Your task to perform on an android device: allow cookies in the chrome app Image 0: 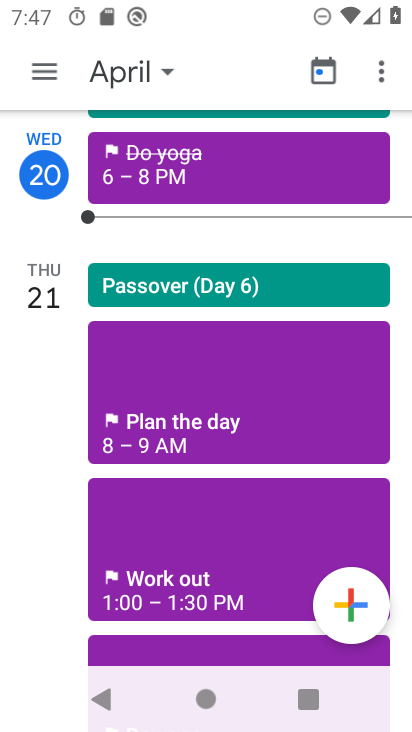
Step 0: click (235, 677)
Your task to perform on an android device: allow cookies in the chrome app Image 1: 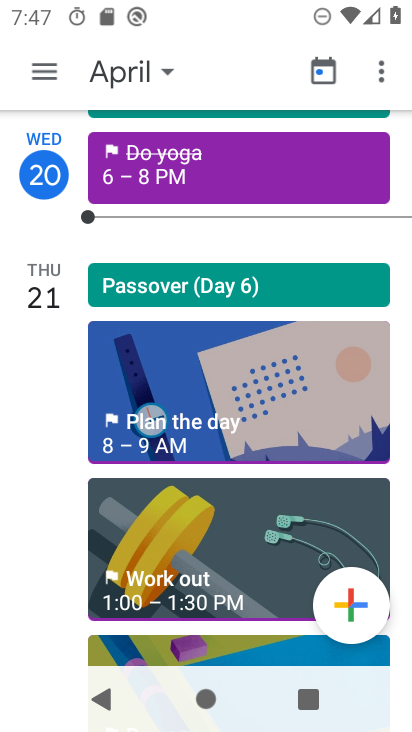
Step 1: press home button
Your task to perform on an android device: allow cookies in the chrome app Image 2: 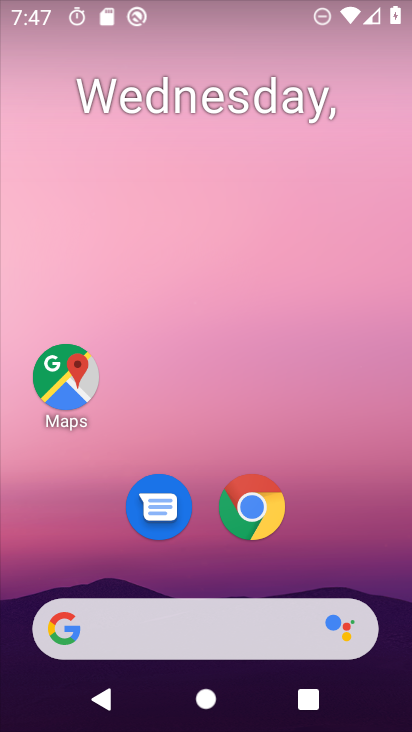
Step 2: drag from (184, 664) to (215, 173)
Your task to perform on an android device: allow cookies in the chrome app Image 3: 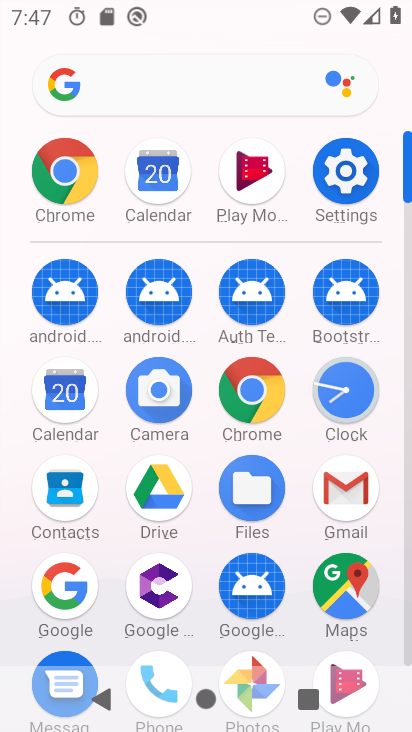
Step 3: click (73, 185)
Your task to perform on an android device: allow cookies in the chrome app Image 4: 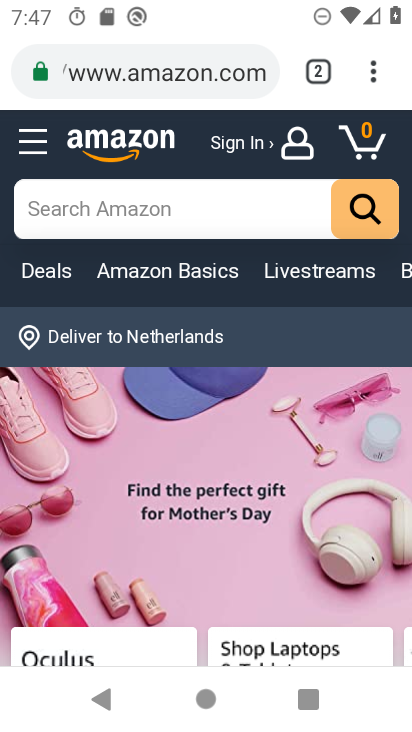
Step 4: click (374, 61)
Your task to perform on an android device: allow cookies in the chrome app Image 5: 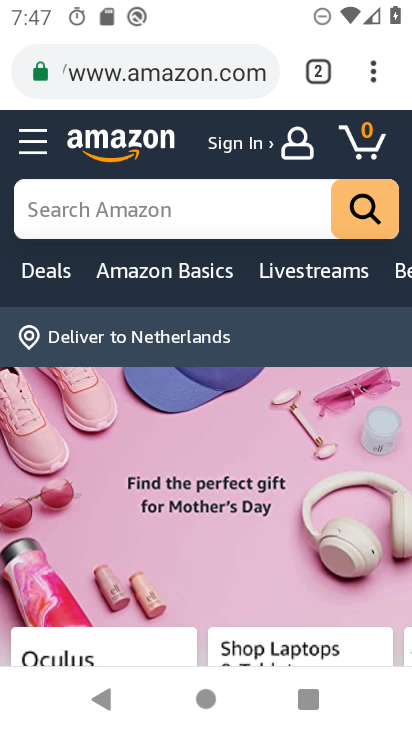
Step 5: click (371, 70)
Your task to perform on an android device: allow cookies in the chrome app Image 6: 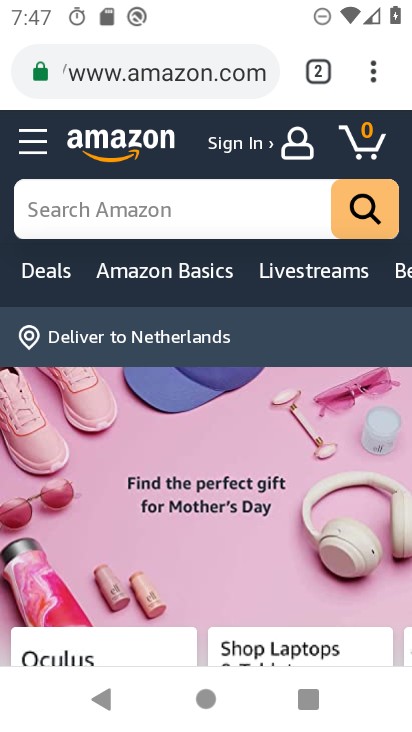
Step 6: click (367, 79)
Your task to perform on an android device: allow cookies in the chrome app Image 7: 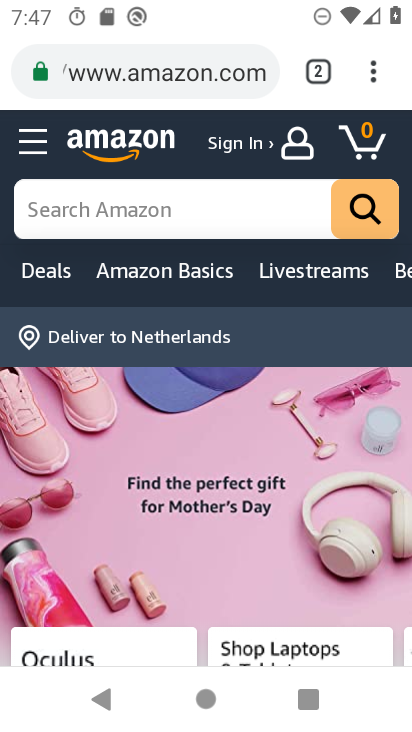
Step 7: click (373, 74)
Your task to perform on an android device: allow cookies in the chrome app Image 8: 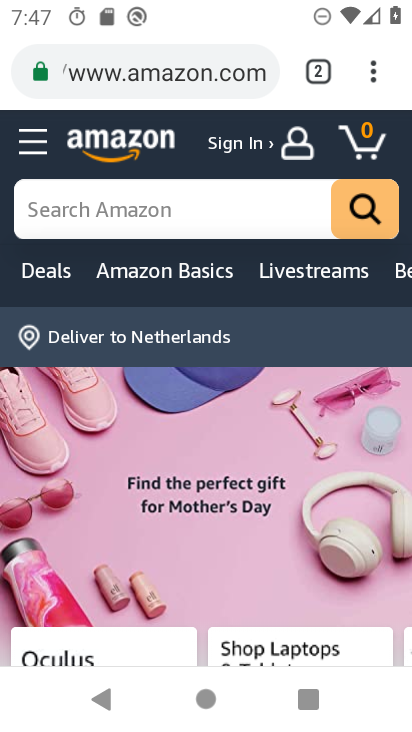
Step 8: click (373, 70)
Your task to perform on an android device: allow cookies in the chrome app Image 9: 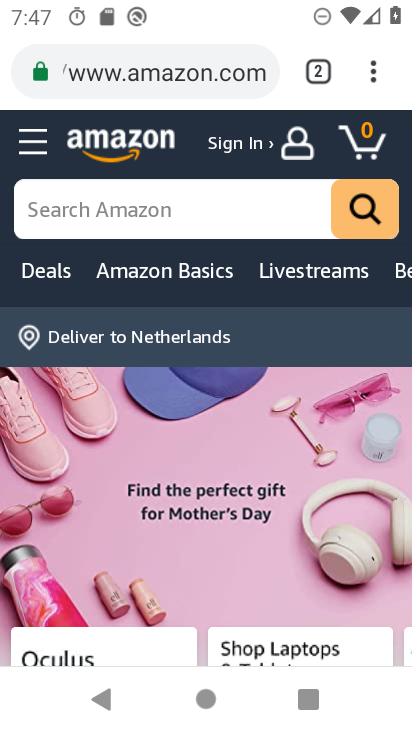
Step 9: click (365, 72)
Your task to perform on an android device: allow cookies in the chrome app Image 10: 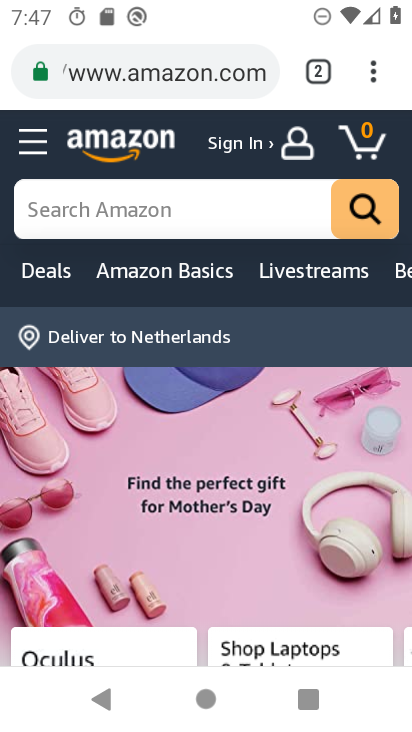
Step 10: click (375, 73)
Your task to perform on an android device: allow cookies in the chrome app Image 11: 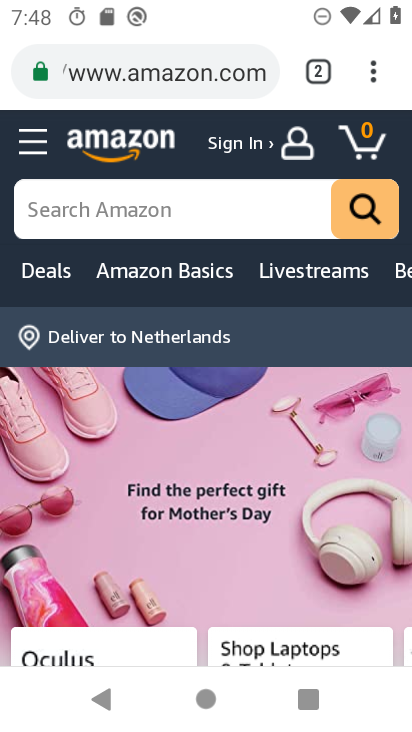
Step 11: click (373, 77)
Your task to perform on an android device: allow cookies in the chrome app Image 12: 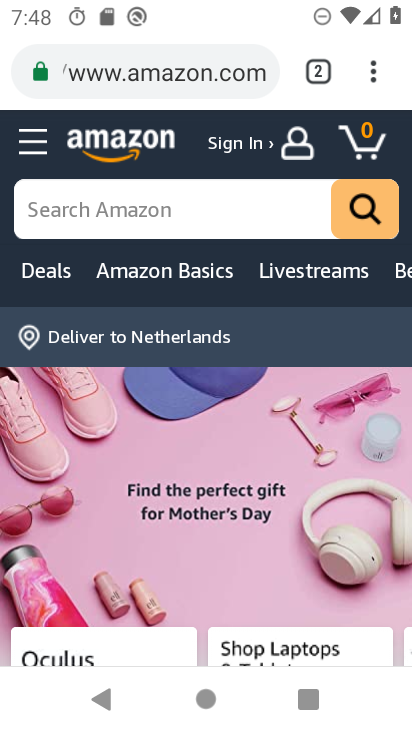
Step 12: click (371, 61)
Your task to perform on an android device: allow cookies in the chrome app Image 13: 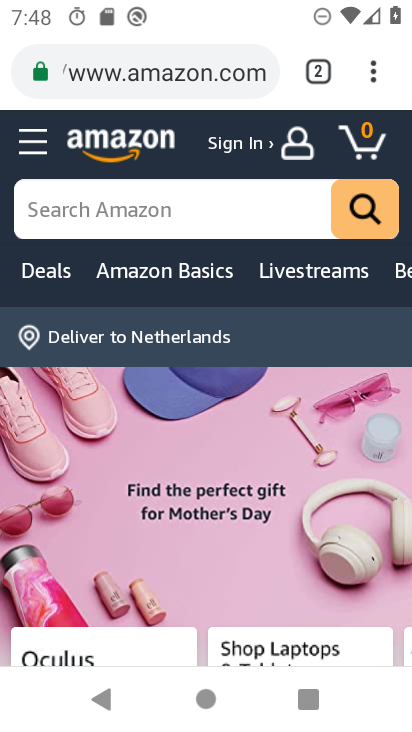
Step 13: click (371, 61)
Your task to perform on an android device: allow cookies in the chrome app Image 14: 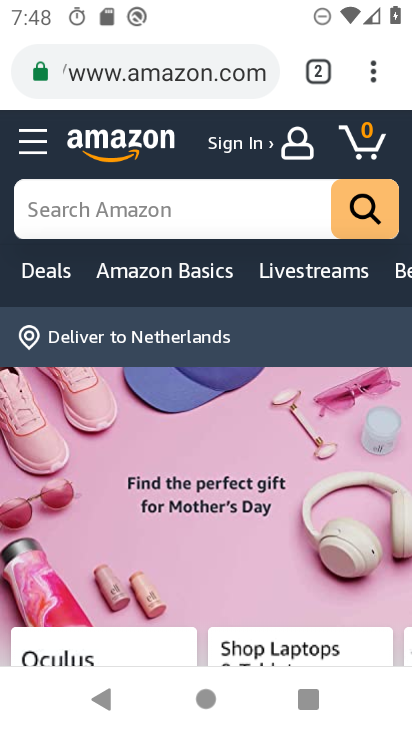
Step 14: click (367, 73)
Your task to perform on an android device: allow cookies in the chrome app Image 15: 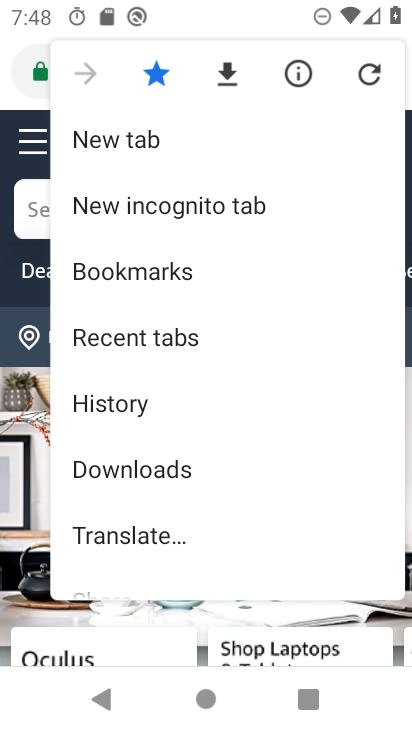
Step 15: drag from (145, 509) to (164, 388)
Your task to perform on an android device: allow cookies in the chrome app Image 16: 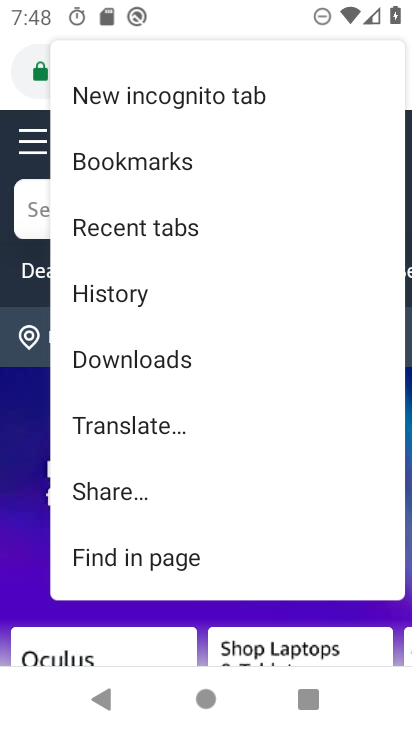
Step 16: drag from (158, 520) to (309, 267)
Your task to perform on an android device: allow cookies in the chrome app Image 17: 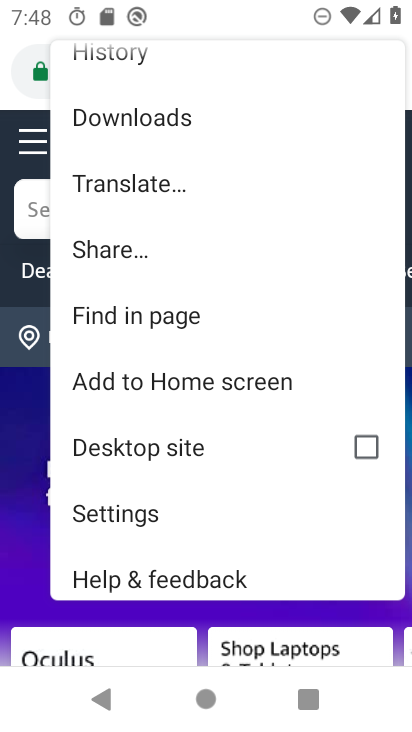
Step 17: click (153, 509)
Your task to perform on an android device: allow cookies in the chrome app Image 18: 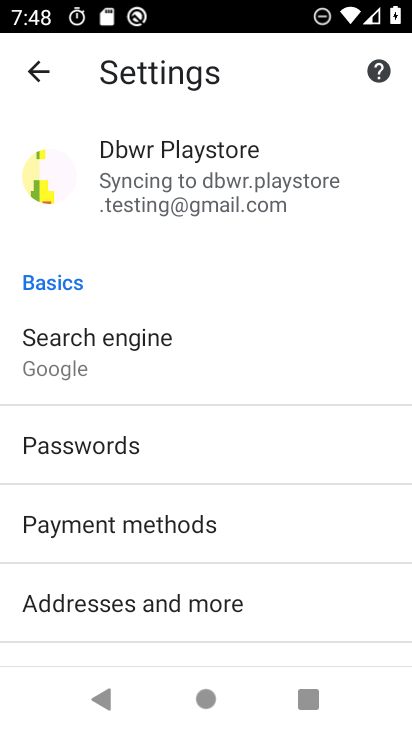
Step 18: drag from (168, 522) to (246, 226)
Your task to perform on an android device: allow cookies in the chrome app Image 19: 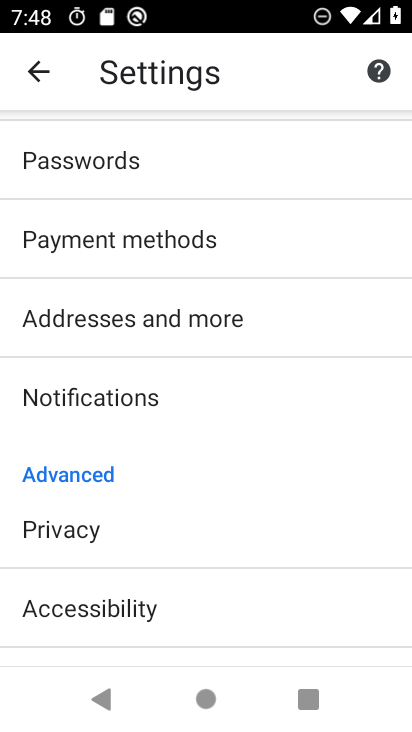
Step 19: drag from (182, 485) to (254, 251)
Your task to perform on an android device: allow cookies in the chrome app Image 20: 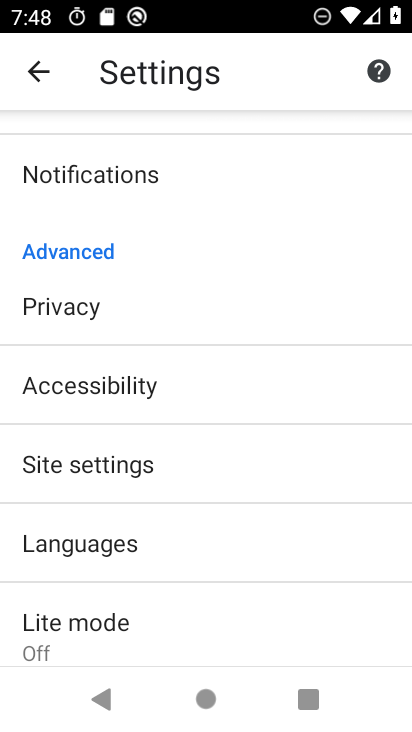
Step 20: click (131, 465)
Your task to perform on an android device: allow cookies in the chrome app Image 21: 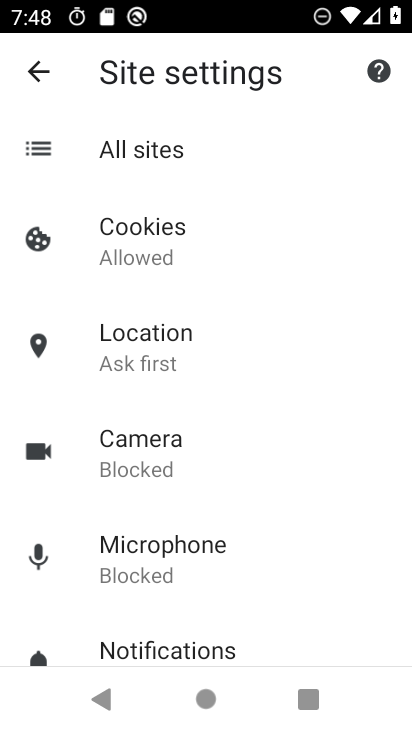
Step 21: click (198, 212)
Your task to perform on an android device: allow cookies in the chrome app Image 22: 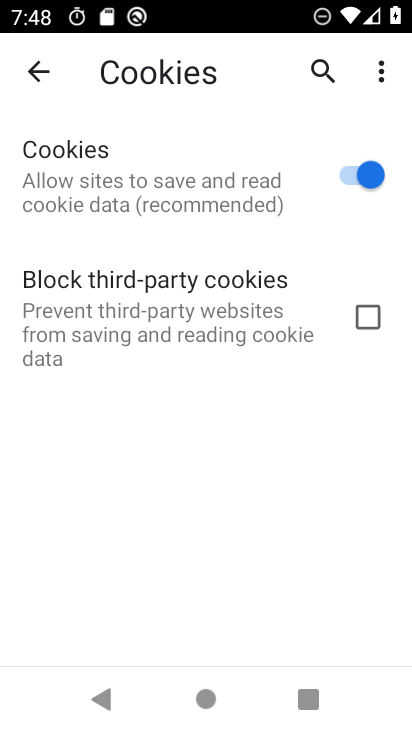
Step 22: click (241, 189)
Your task to perform on an android device: allow cookies in the chrome app Image 23: 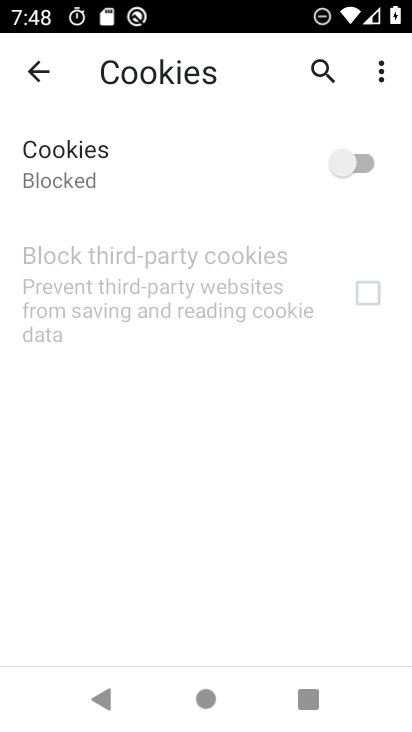
Step 23: click (241, 189)
Your task to perform on an android device: allow cookies in the chrome app Image 24: 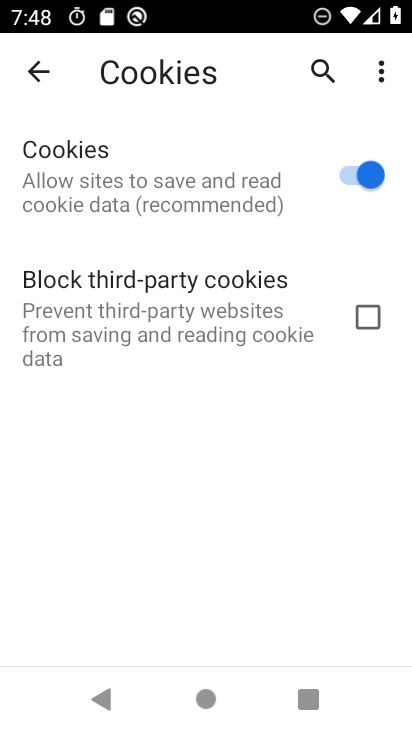
Step 24: task complete